Your task to perform on an android device: change the clock style Image 0: 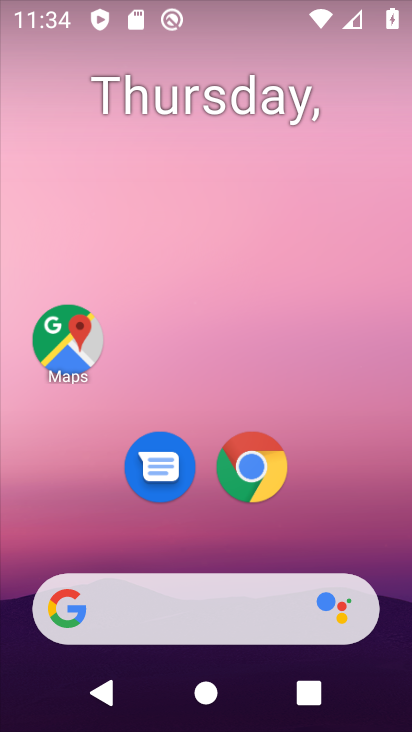
Step 0: drag from (347, 541) to (404, 503)
Your task to perform on an android device: change the clock style Image 1: 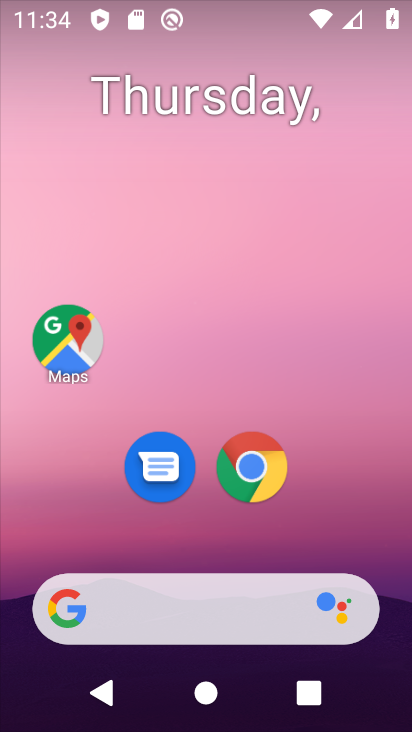
Step 1: drag from (329, 558) to (393, 30)
Your task to perform on an android device: change the clock style Image 2: 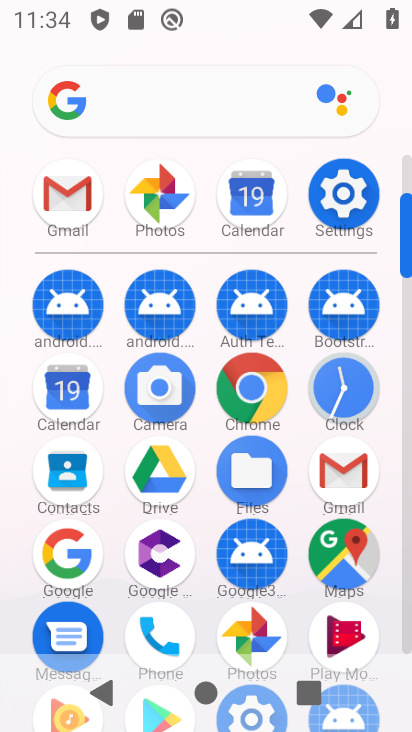
Step 2: click (350, 390)
Your task to perform on an android device: change the clock style Image 3: 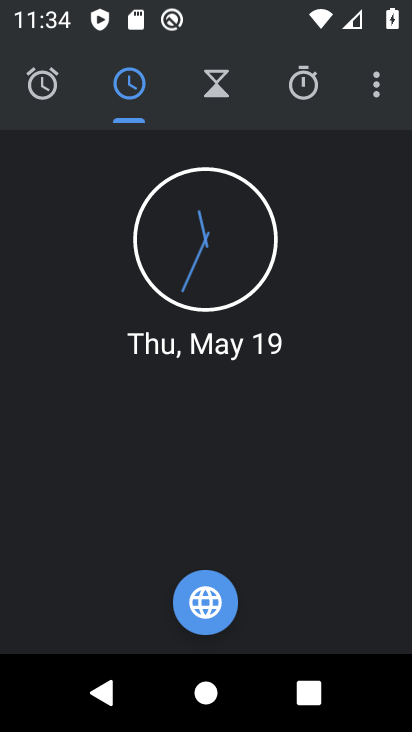
Step 3: click (374, 93)
Your task to perform on an android device: change the clock style Image 4: 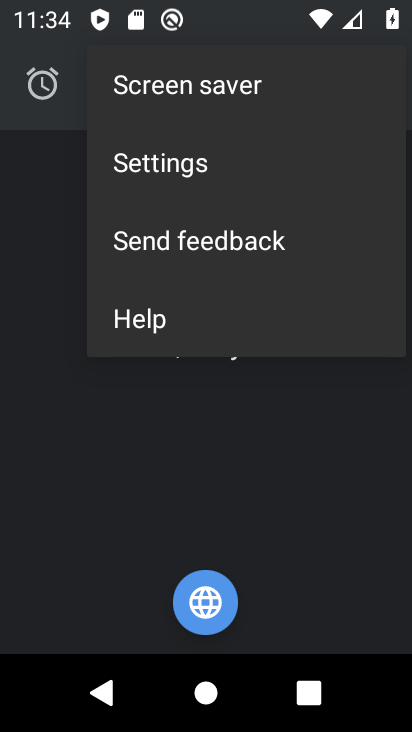
Step 4: click (164, 171)
Your task to perform on an android device: change the clock style Image 5: 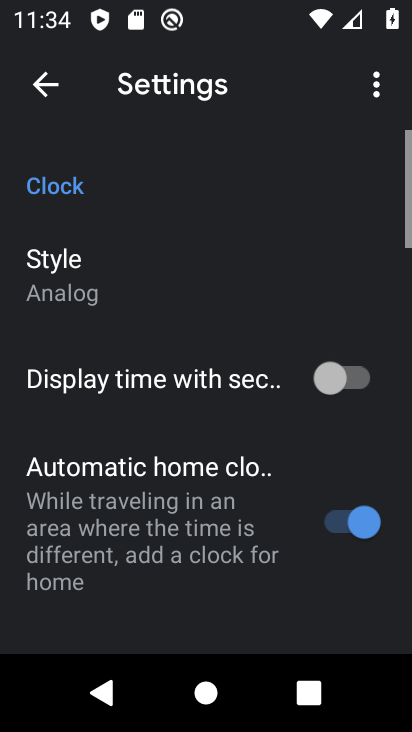
Step 5: click (56, 286)
Your task to perform on an android device: change the clock style Image 6: 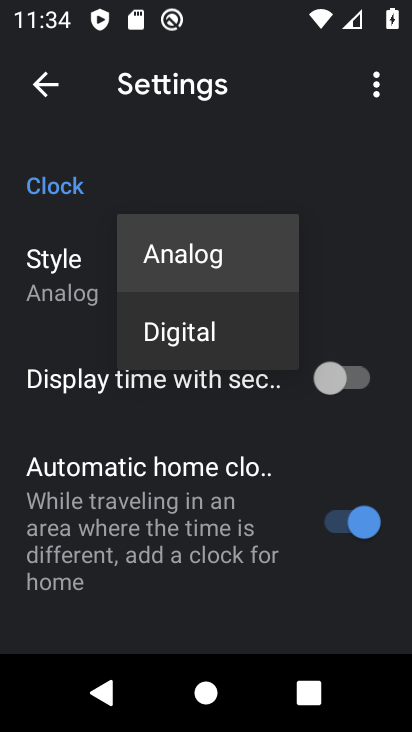
Step 6: click (153, 345)
Your task to perform on an android device: change the clock style Image 7: 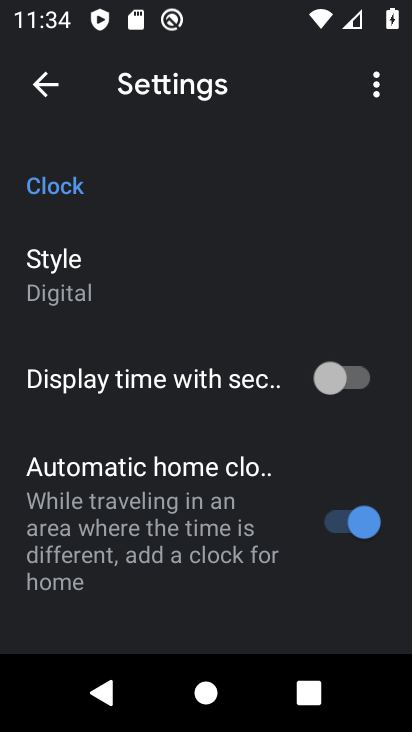
Step 7: task complete